Your task to perform on an android device: Open Google Maps and go to "Timeline" Image 0: 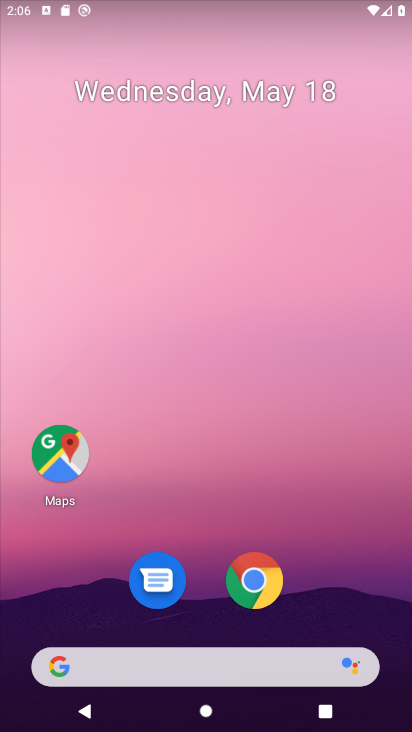
Step 0: drag from (218, 609) to (300, 185)
Your task to perform on an android device: Open Google Maps and go to "Timeline" Image 1: 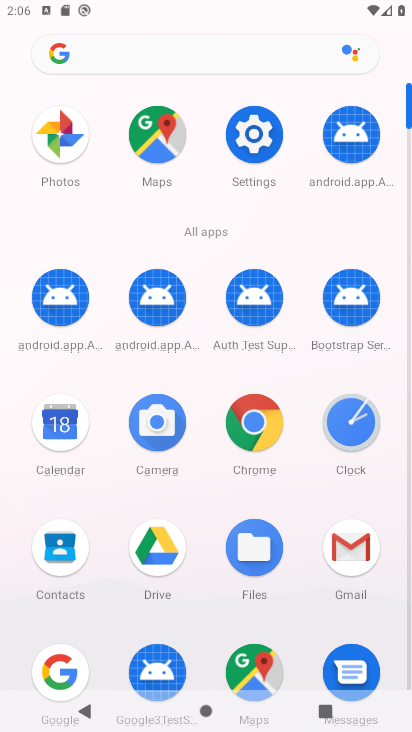
Step 1: click (253, 665)
Your task to perform on an android device: Open Google Maps and go to "Timeline" Image 2: 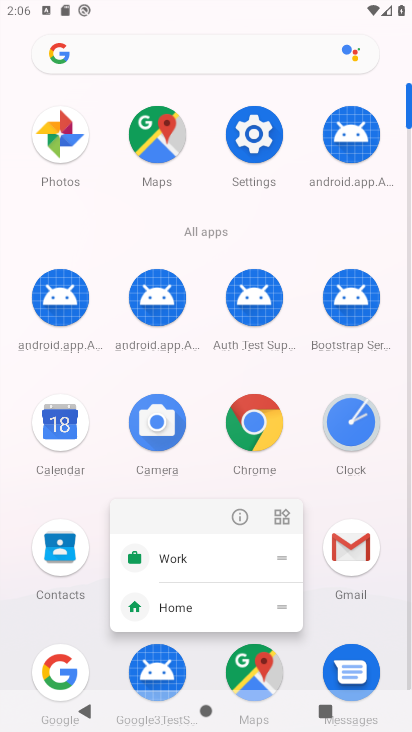
Step 2: click (234, 510)
Your task to perform on an android device: Open Google Maps and go to "Timeline" Image 3: 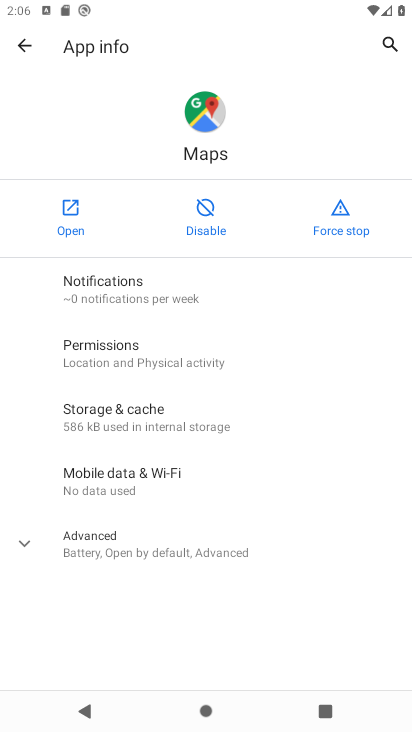
Step 3: click (60, 224)
Your task to perform on an android device: Open Google Maps and go to "Timeline" Image 4: 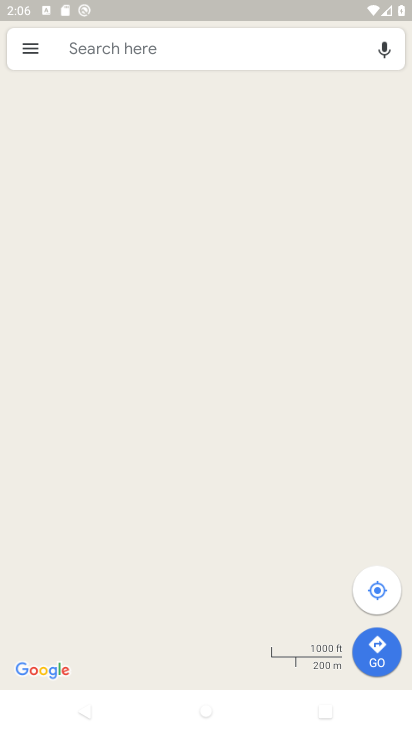
Step 4: click (31, 53)
Your task to perform on an android device: Open Google Maps and go to "Timeline" Image 5: 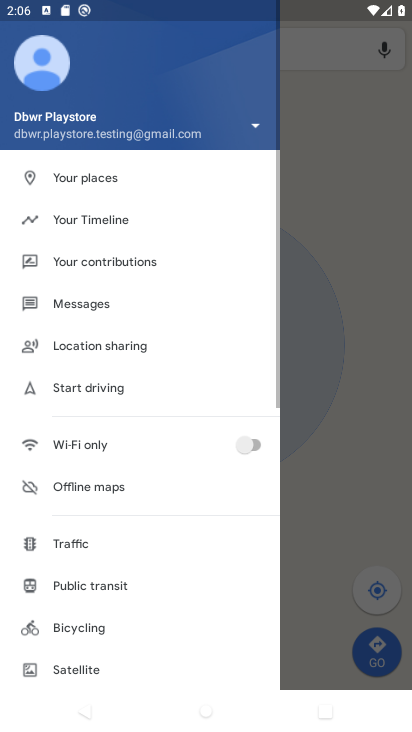
Step 5: click (104, 206)
Your task to perform on an android device: Open Google Maps and go to "Timeline" Image 6: 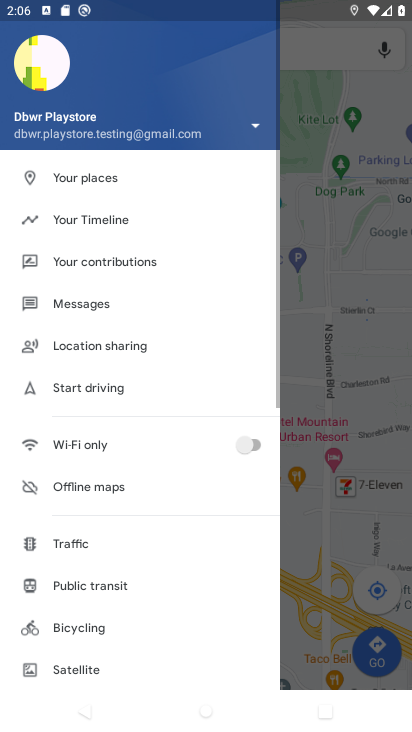
Step 6: click (68, 221)
Your task to perform on an android device: Open Google Maps and go to "Timeline" Image 7: 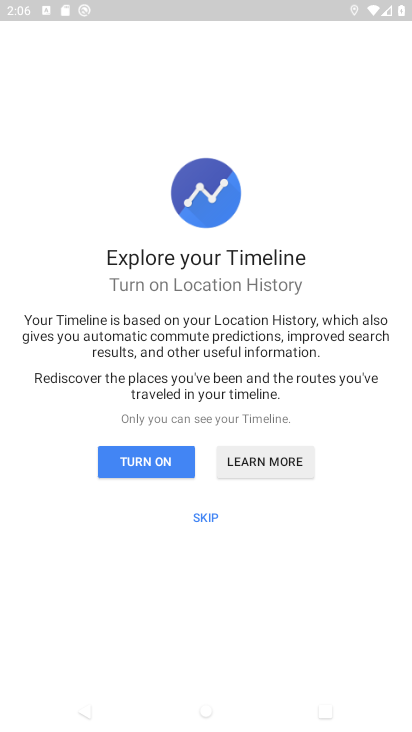
Step 7: click (199, 515)
Your task to perform on an android device: Open Google Maps and go to "Timeline" Image 8: 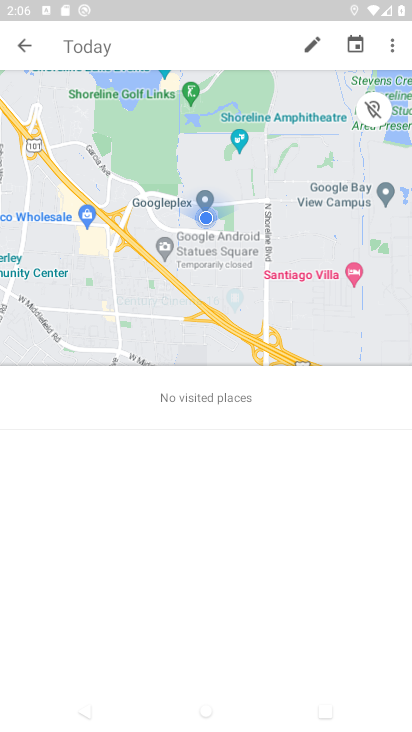
Step 8: task complete